Your task to perform on an android device: Search for sushi restaurants on Maps Image 0: 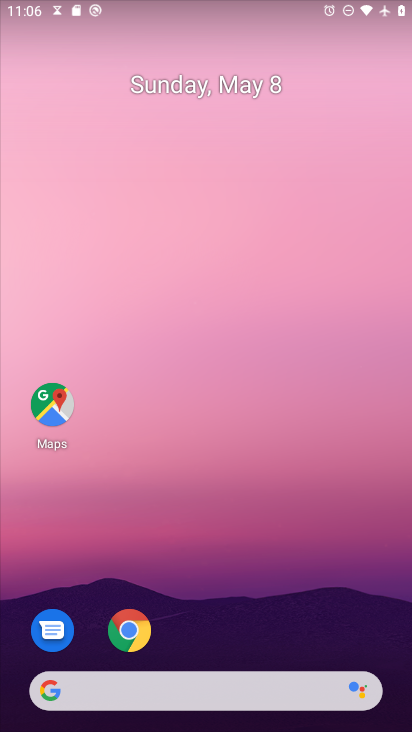
Step 0: click (47, 407)
Your task to perform on an android device: Search for sushi restaurants on Maps Image 1: 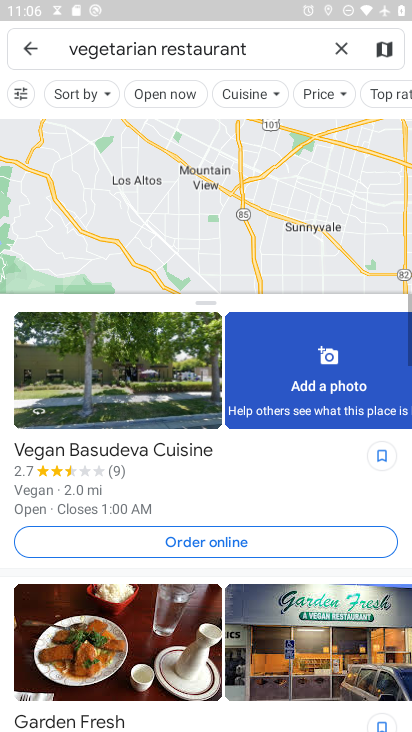
Step 1: click (338, 47)
Your task to perform on an android device: Search for sushi restaurants on Maps Image 2: 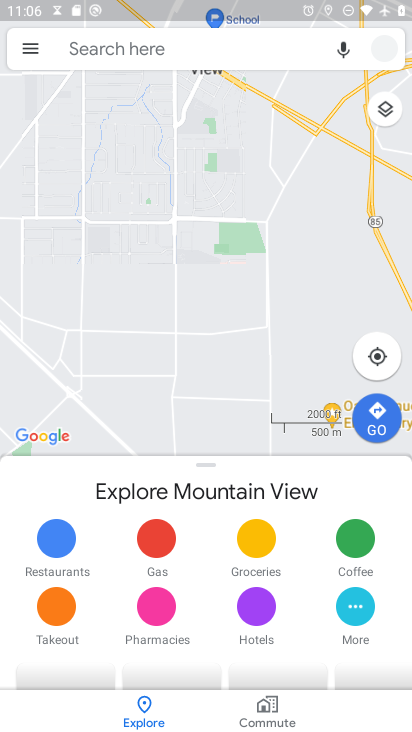
Step 2: click (210, 50)
Your task to perform on an android device: Search for sushi restaurants on Maps Image 3: 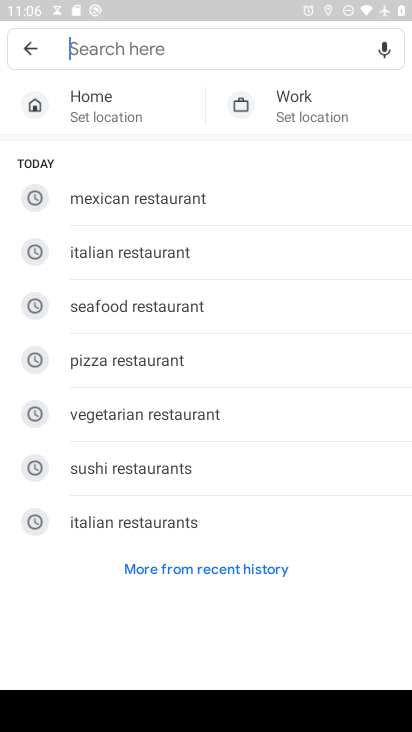
Step 3: click (131, 469)
Your task to perform on an android device: Search for sushi restaurants on Maps Image 4: 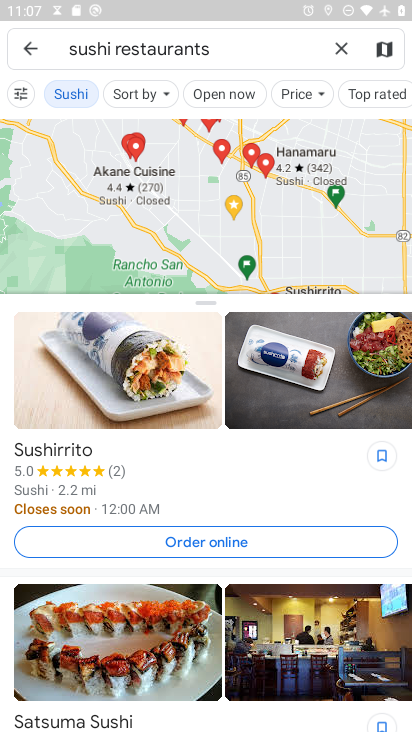
Step 4: task complete